Your task to perform on an android device: Search for vegetarian restaurants on Maps Image 0: 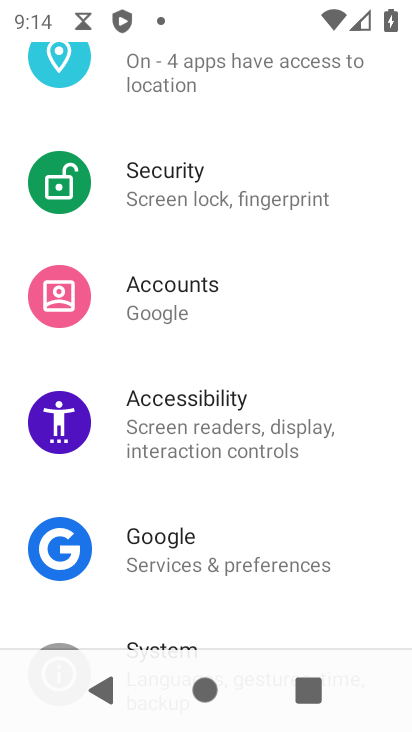
Step 0: press home button
Your task to perform on an android device: Search for vegetarian restaurants on Maps Image 1: 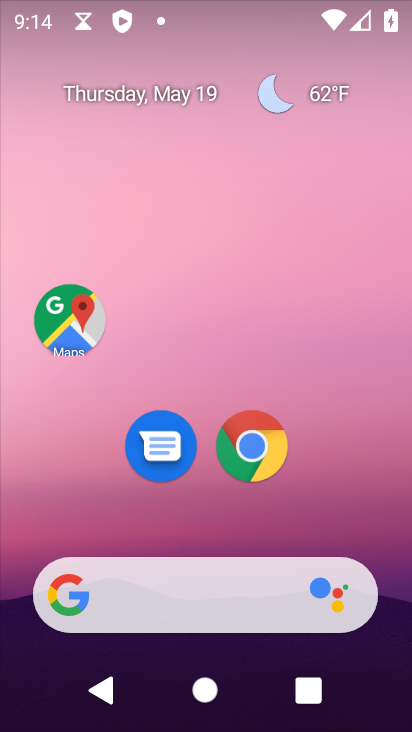
Step 1: click (79, 313)
Your task to perform on an android device: Search for vegetarian restaurants on Maps Image 2: 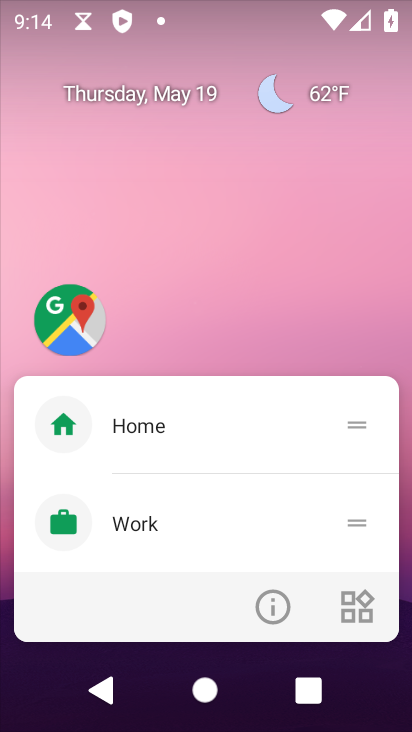
Step 2: click (61, 314)
Your task to perform on an android device: Search for vegetarian restaurants on Maps Image 3: 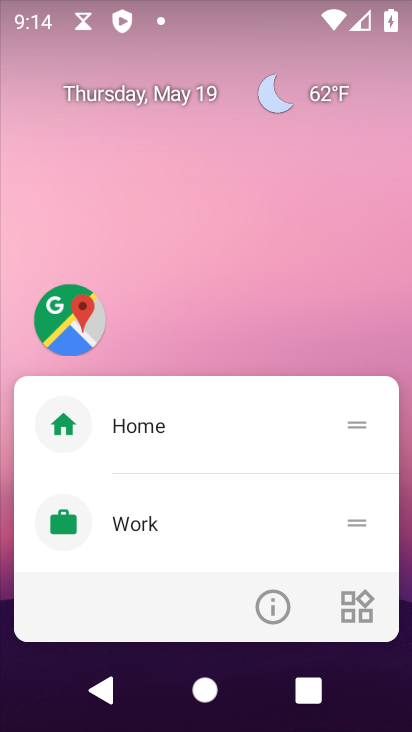
Step 3: click (61, 314)
Your task to perform on an android device: Search for vegetarian restaurants on Maps Image 4: 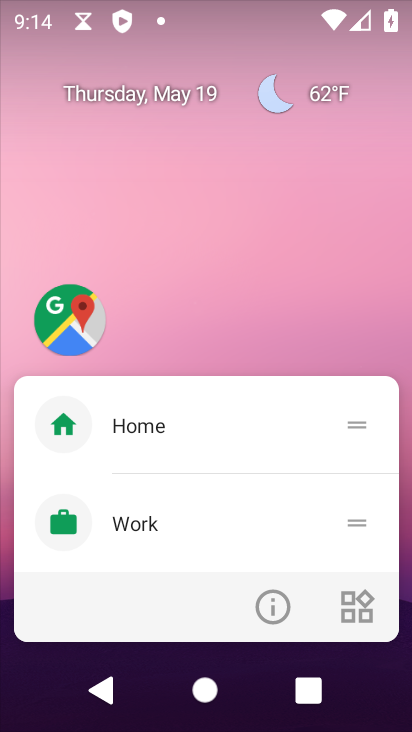
Step 4: click (63, 316)
Your task to perform on an android device: Search for vegetarian restaurants on Maps Image 5: 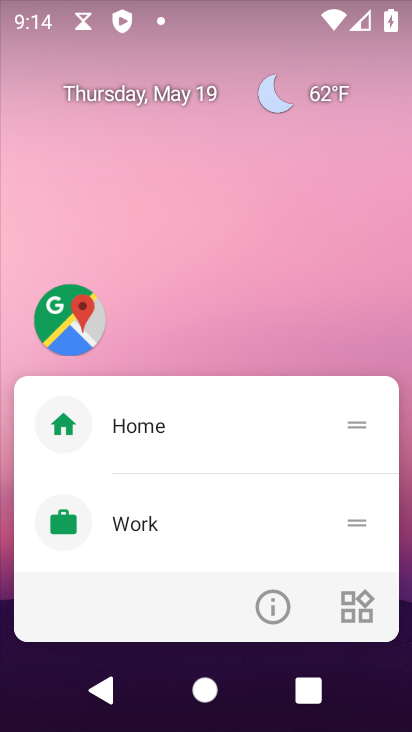
Step 5: click (64, 317)
Your task to perform on an android device: Search for vegetarian restaurants on Maps Image 6: 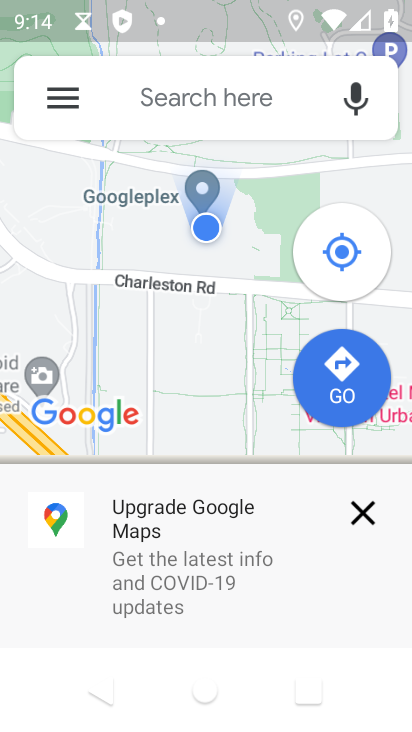
Step 6: click (149, 104)
Your task to perform on an android device: Search for vegetarian restaurants on Maps Image 7: 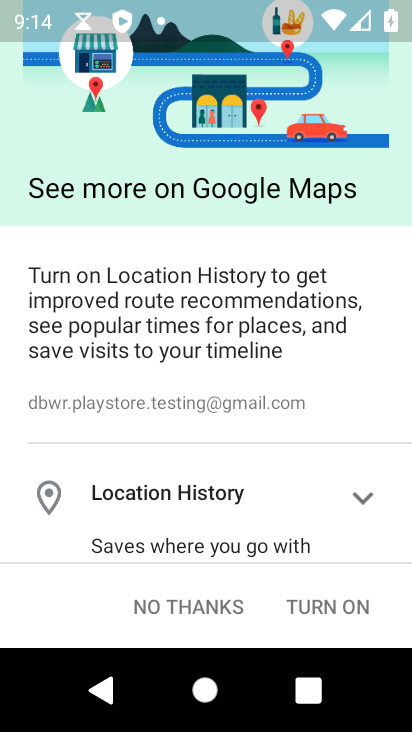
Step 7: click (136, 603)
Your task to perform on an android device: Search for vegetarian restaurants on Maps Image 8: 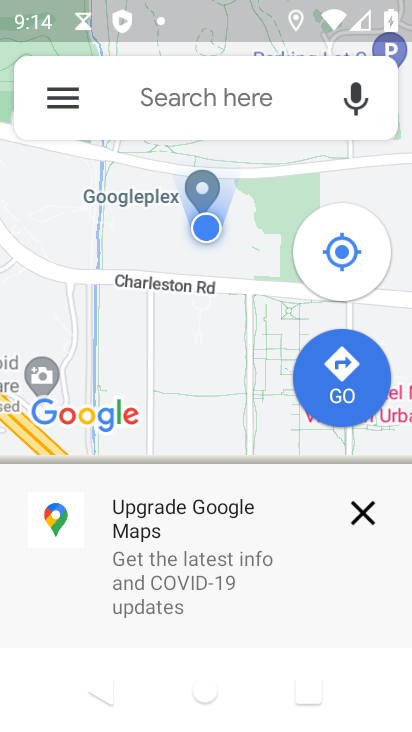
Step 8: click (166, 91)
Your task to perform on an android device: Search for vegetarian restaurants on Maps Image 9: 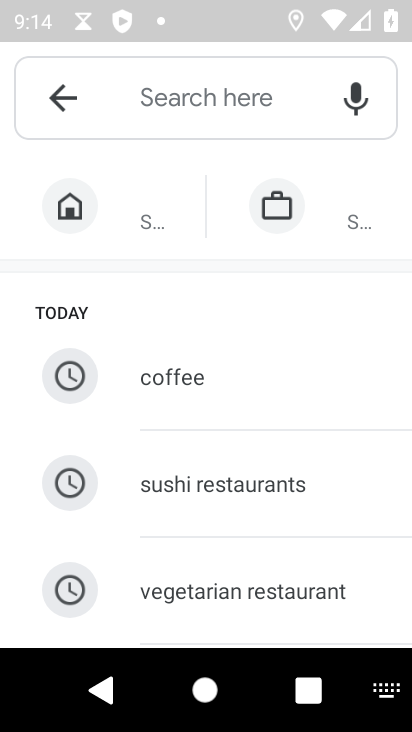
Step 9: type "vegetarian restaurant"
Your task to perform on an android device: Search for vegetarian restaurants on Maps Image 10: 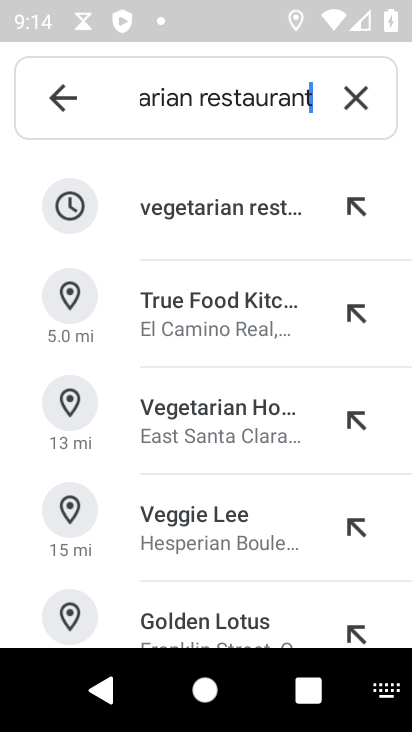
Step 10: click (198, 212)
Your task to perform on an android device: Search for vegetarian restaurants on Maps Image 11: 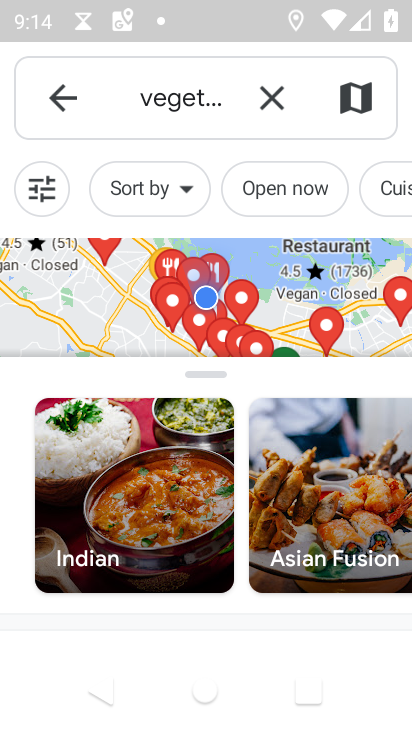
Step 11: task complete